Your task to perform on an android device: check storage Image 0: 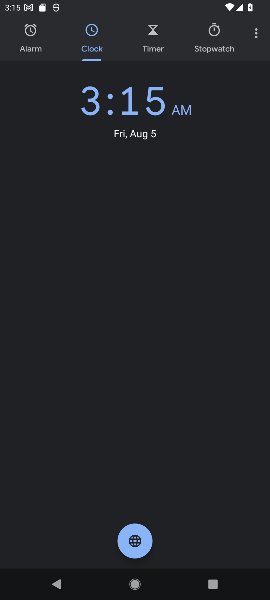
Step 0: press home button
Your task to perform on an android device: check storage Image 1: 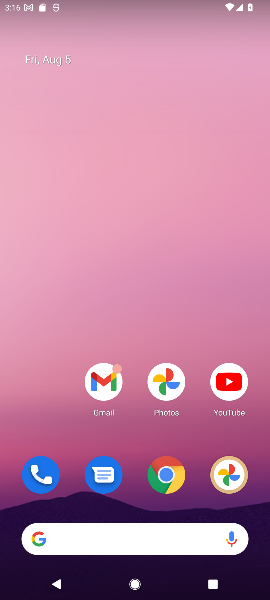
Step 1: drag from (263, 450) to (175, 86)
Your task to perform on an android device: check storage Image 2: 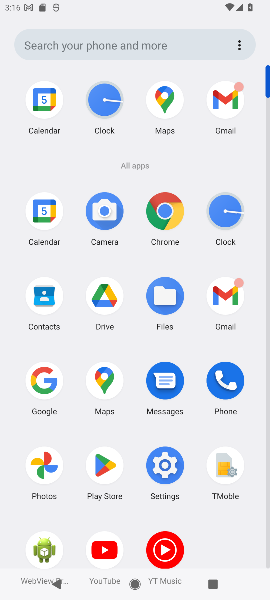
Step 2: click (174, 462)
Your task to perform on an android device: check storage Image 3: 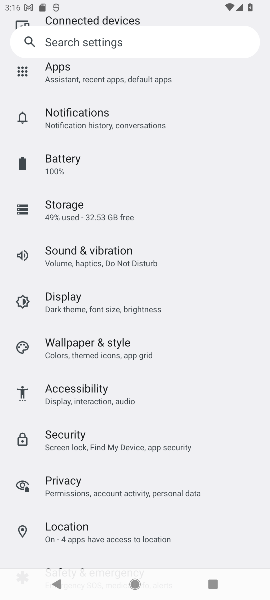
Step 3: click (71, 205)
Your task to perform on an android device: check storage Image 4: 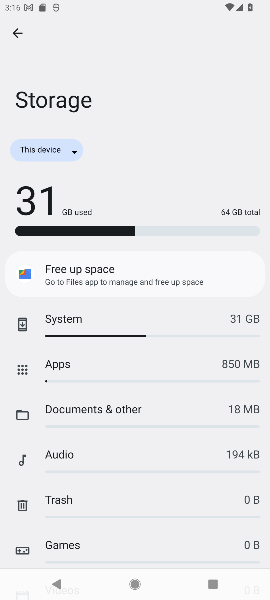
Step 4: task complete